Your task to perform on an android device: Go to wifi settings Image 0: 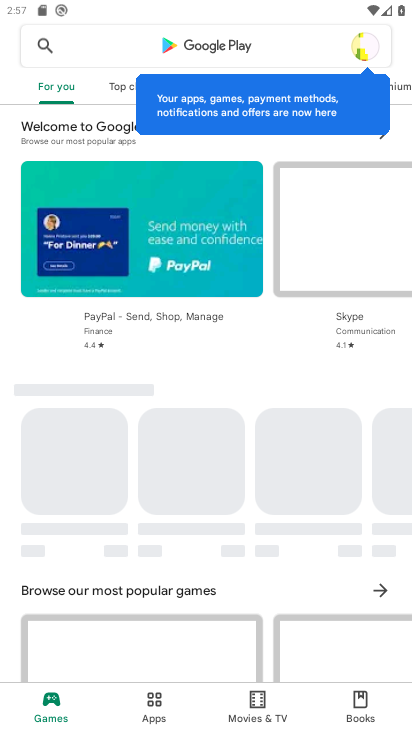
Step 0: press home button
Your task to perform on an android device: Go to wifi settings Image 1: 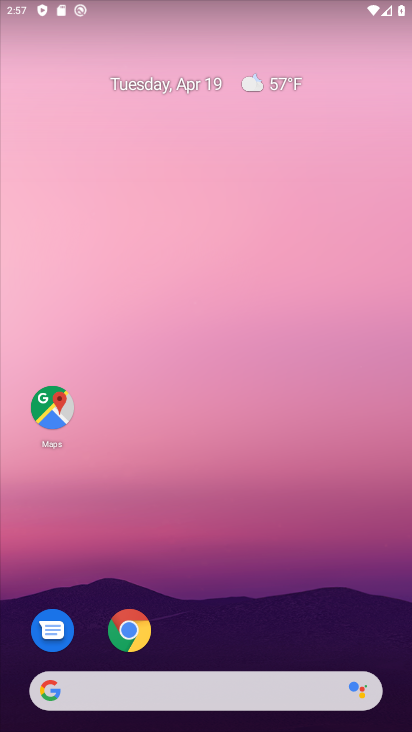
Step 1: click (213, 139)
Your task to perform on an android device: Go to wifi settings Image 2: 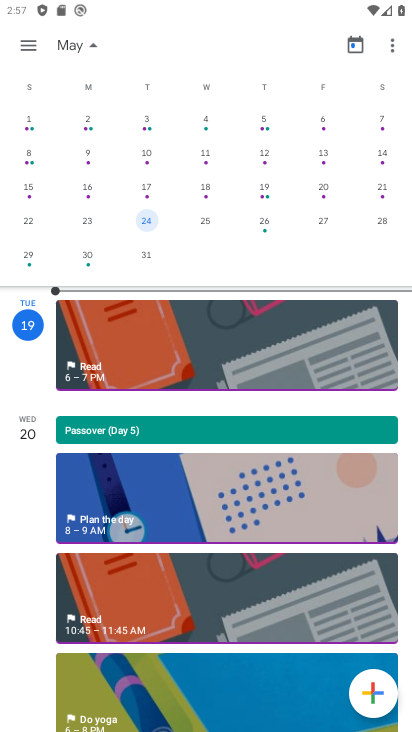
Step 2: press home button
Your task to perform on an android device: Go to wifi settings Image 3: 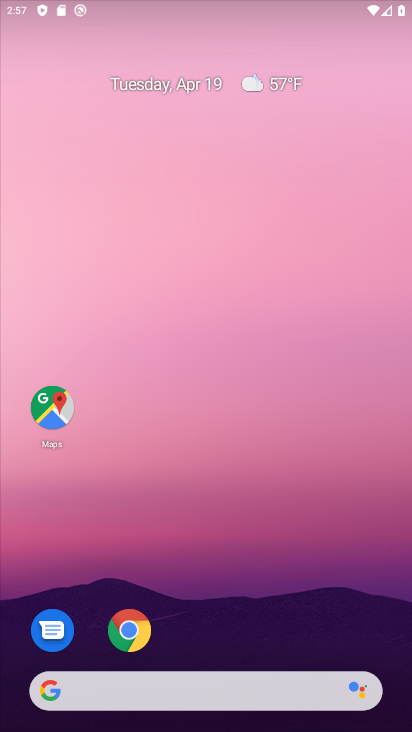
Step 3: drag from (227, 603) to (234, 208)
Your task to perform on an android device: Go to wifi settings Image 4: 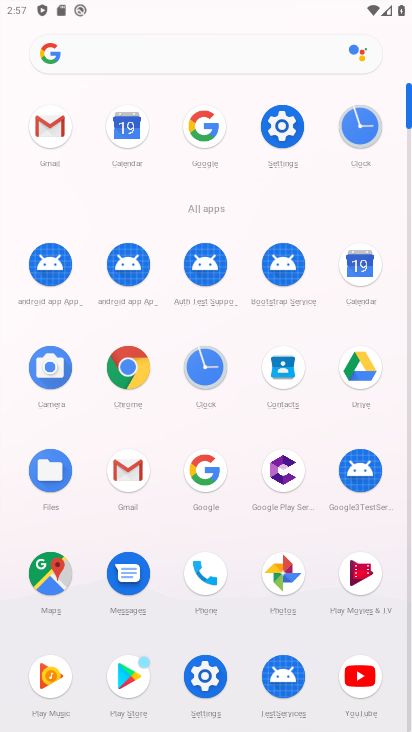
Step 4: click (295, 118)
Your task to perform on an android device: Go to wifi settings Image 5: 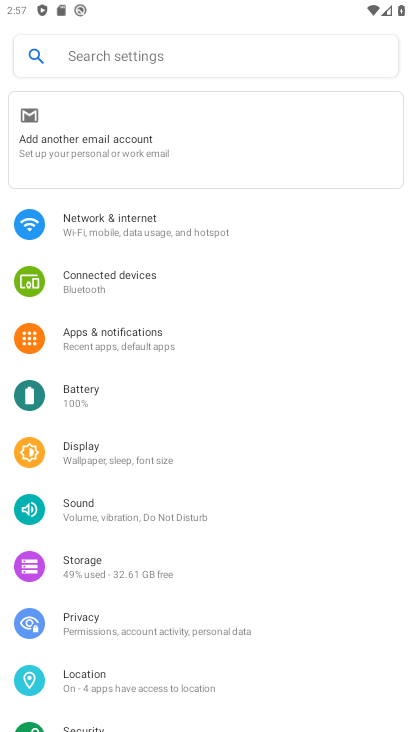
Step 5: click (121, 220)
Your task to perform on an android device: Go to wifi settings Image 6: 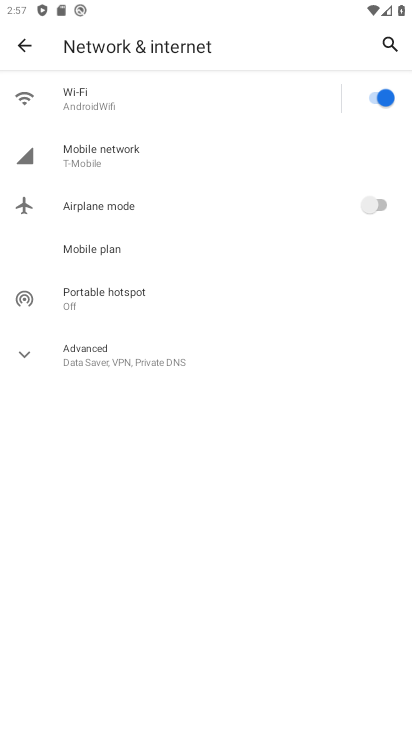
Step 6: click (119, 109)
Your task to perform on an android device: Go to wifi settings Image 7: 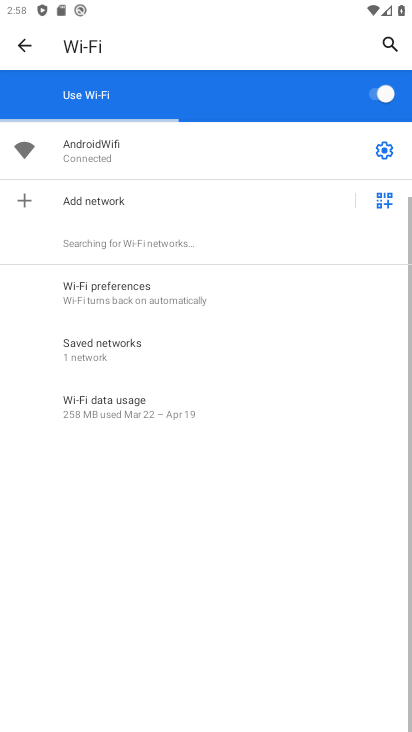
Step 7: task complete